Your task to perform on an android device: Open the map Image 0: 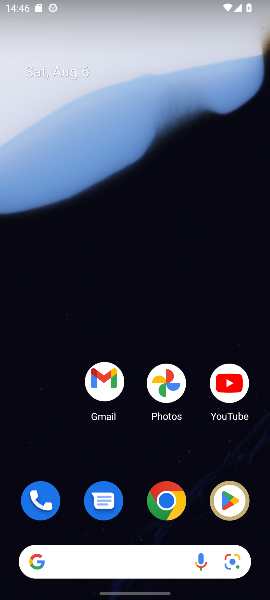
Step 0: press home button
Your task to perform on an android device: Open the map Image 1: 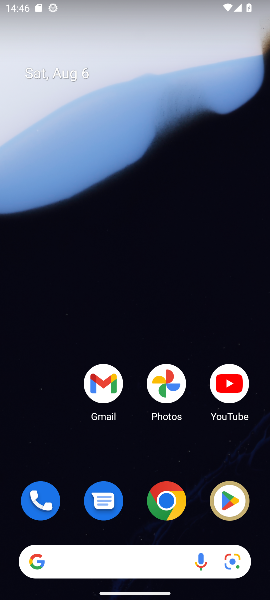
Step 1: drag from (213, 460) to (263, 3)
Your task to perform on an android device: Open the map Image 2: 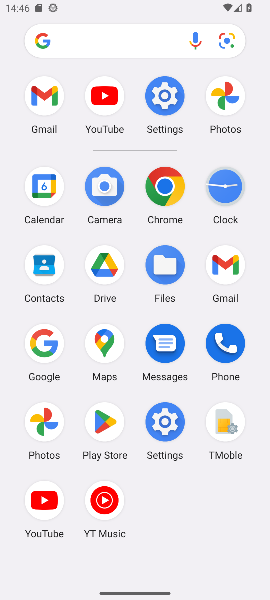
Step 2: click (93, 350)
Your task to perform on an android device: Open the map Image 3: 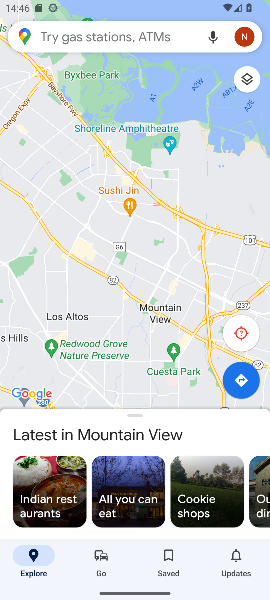
Step 3: task complete